Your task to perform on an android device: see creations saved in the google photos Image 0: 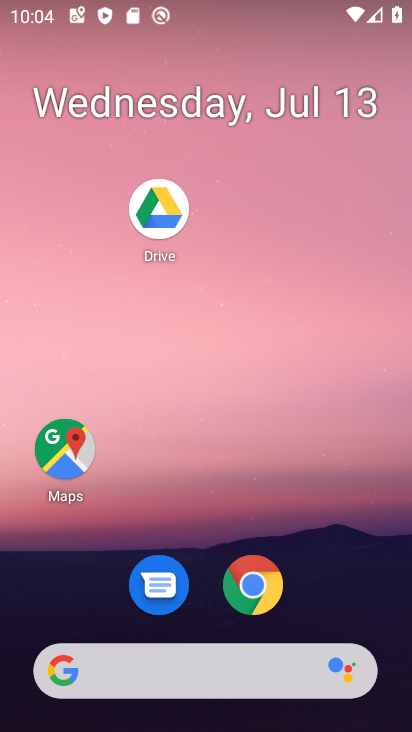
Step 0: drag from (197, 676) to (377, 75)
Your task to perform on an android device: see creations saved in the google photos Image 1: 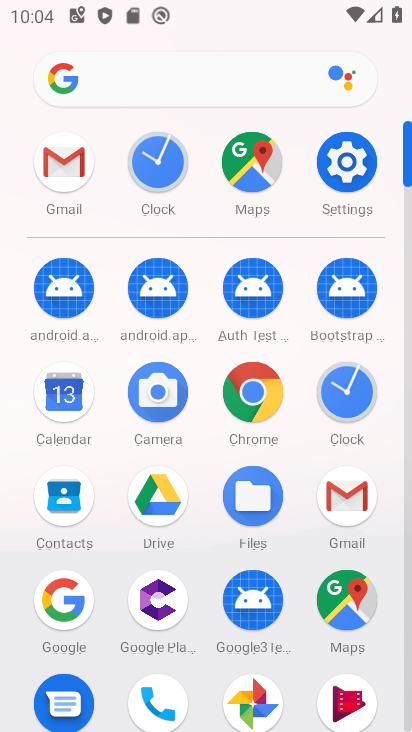
Step 1: click (253, 690)
Your task to perform on an android device: see creations saved in the google photos Image 2: 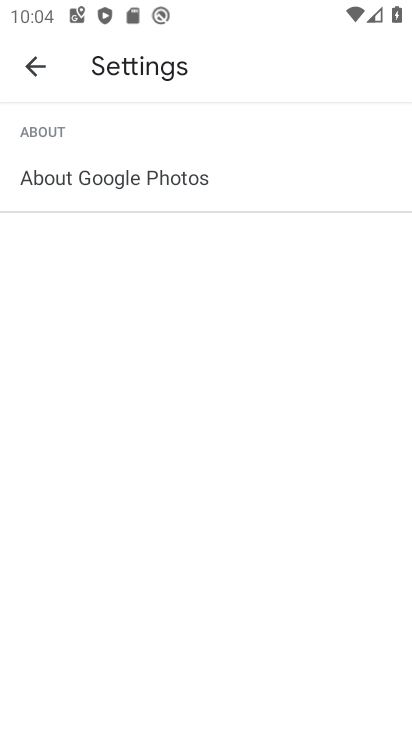
Step 2: click (28, 61)
Your task to perform on an android device: see creations saved in the google photos Image 3: 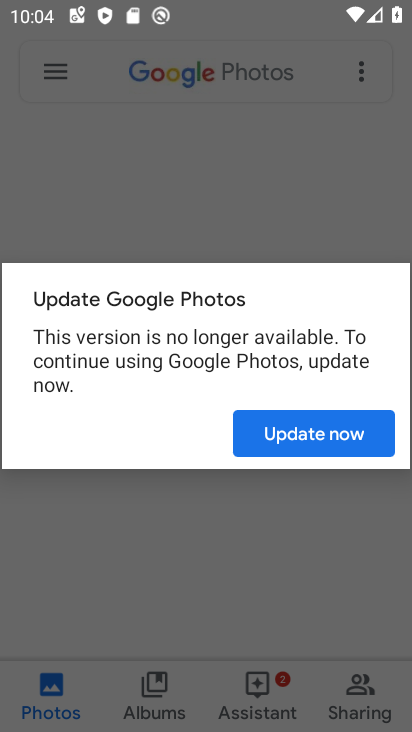
Step 3: click (317, 428)
Your task to perform on an android device: see creations saved in the google photos Image 4: 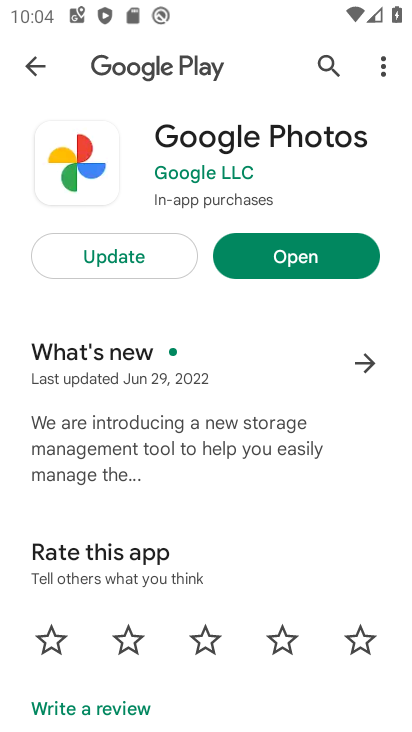
Step 4: click (297, 259)
Your task to perform on an android device: see creations saved in the google photos Image 5: 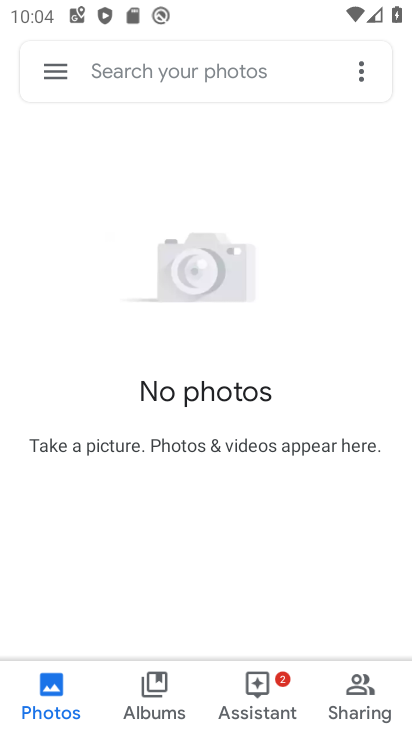
Step 5: click (155, 691)
Your task to perform on an android device: see creations saved in the google photos Image 6: 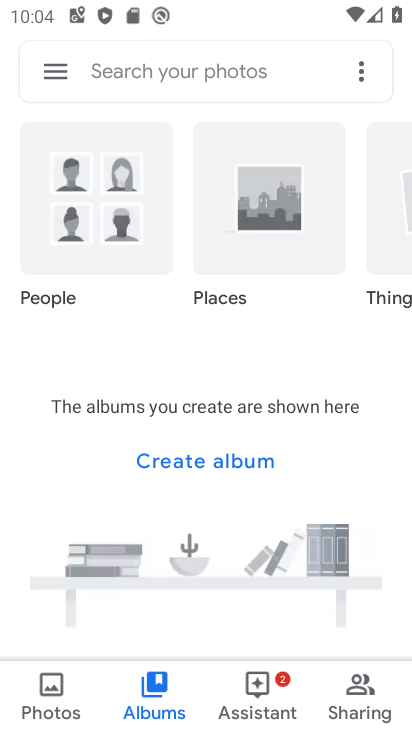
Step 6: click (167, 67)
Your task to perform on an android device: see creations saved in the google photos Image 7: 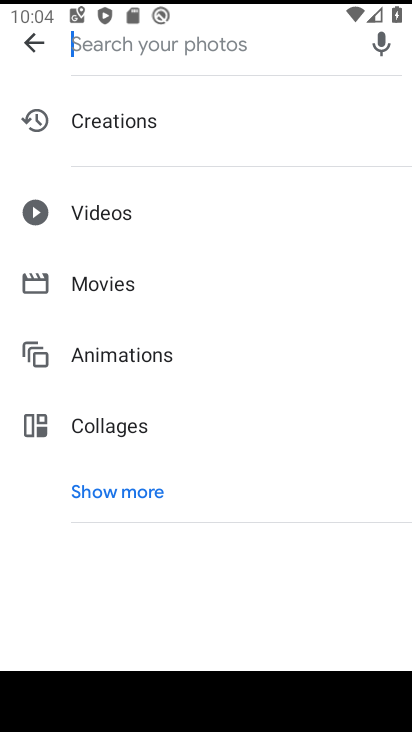
Step 7: click (140, 492)
Your task to perform on an android device: see creations saved in the google photos Image 8: 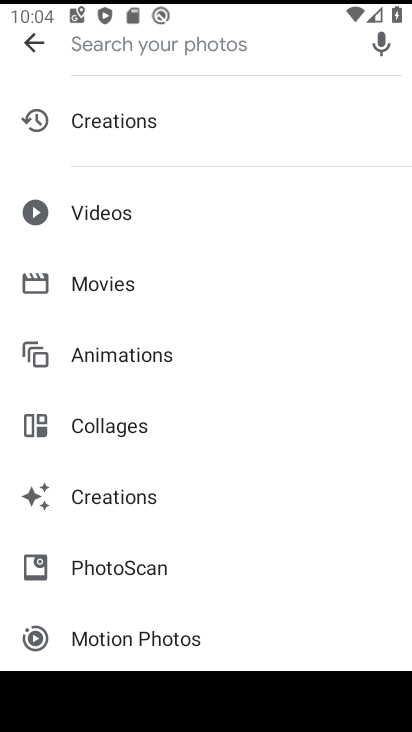
Step 8: click (141, 497)
Your task to perform on an android device: see creations saved in the google photos Image 9: 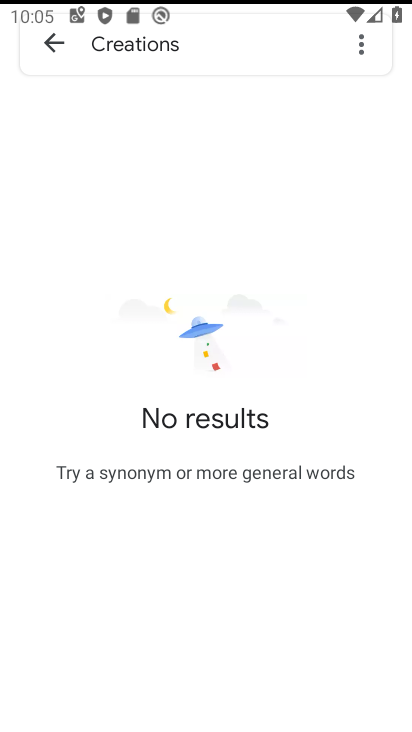
Step 9: task complete